Your task to perform on an android device: make emails show in primary in the gmail app Image 0: 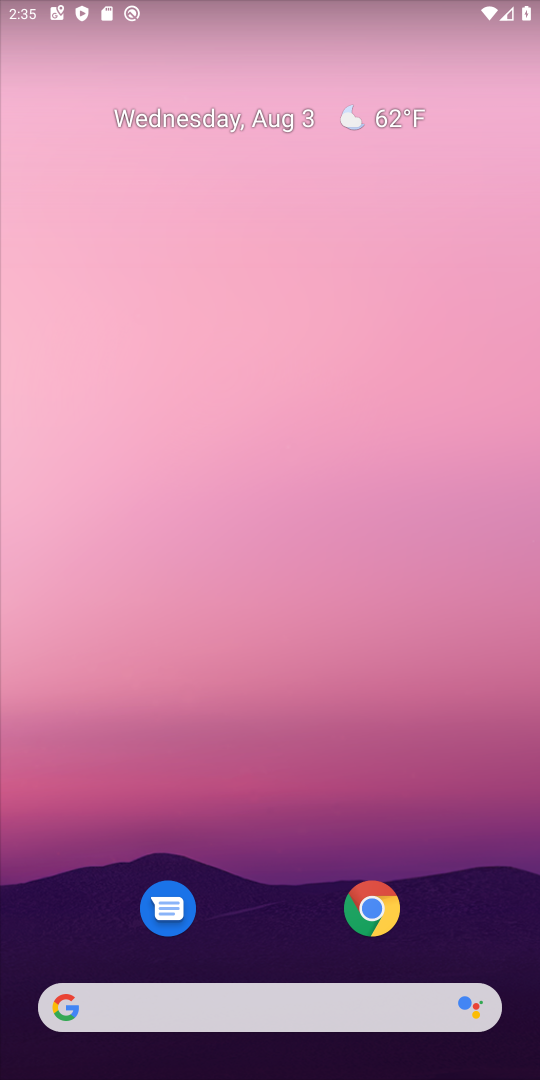
Step 0: drag from (248, 1015) to (313, 171)
Your task to perform on an android device: make emails show in primary in the gmail app Image 1: 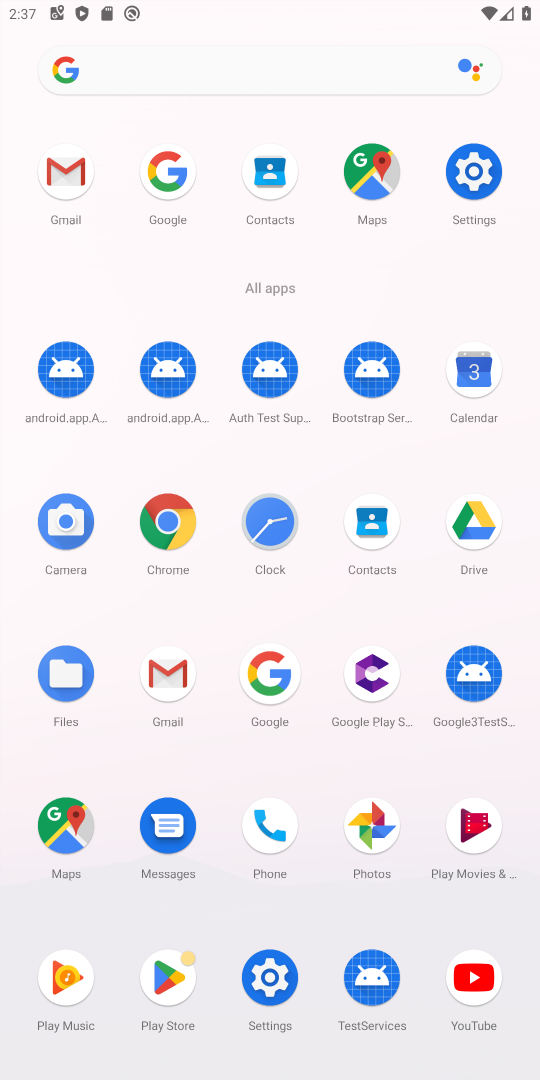
Step 1: click (81, 168)
Your task to perform on an android device: make emails show in primary in the gmail app Image 2: 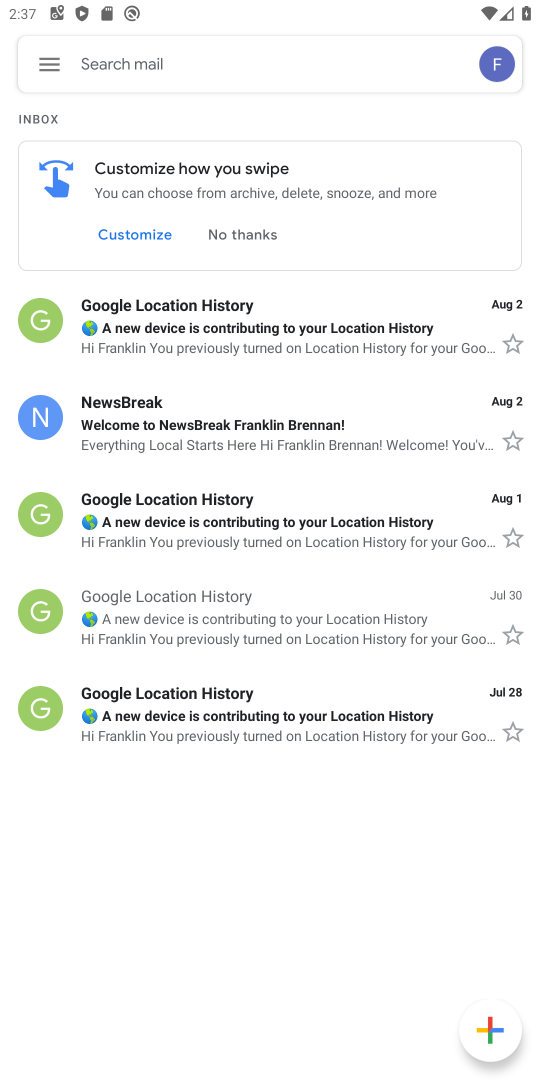
Step 2: click (53, 59)
Your task to perform on an android device: make emails show in primary in the gmail app Image 3: 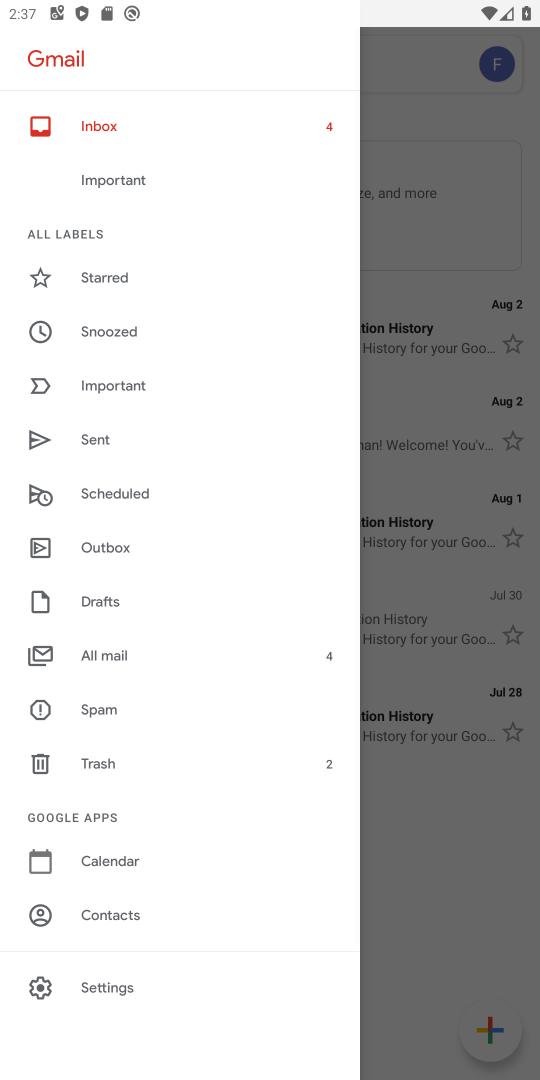
Step 3: click (210, 994)
Your task to perform on an android device: make emails show in primary in the gmail app Image 4: 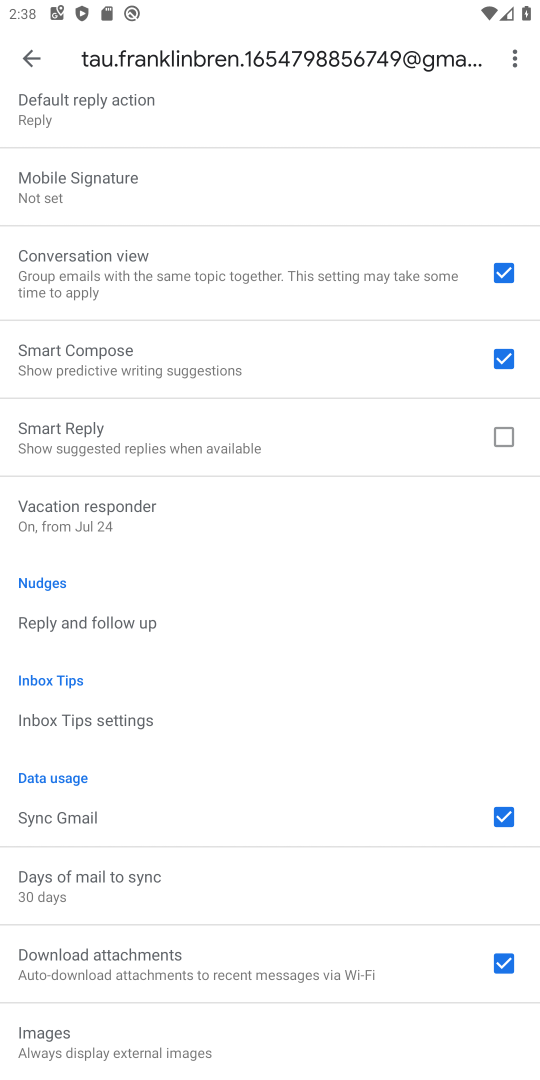
Step 4: drag from (319, 465) to (321, 990)
Your task to perform on an android device: make emails show in primary in the gmail app Image 5: 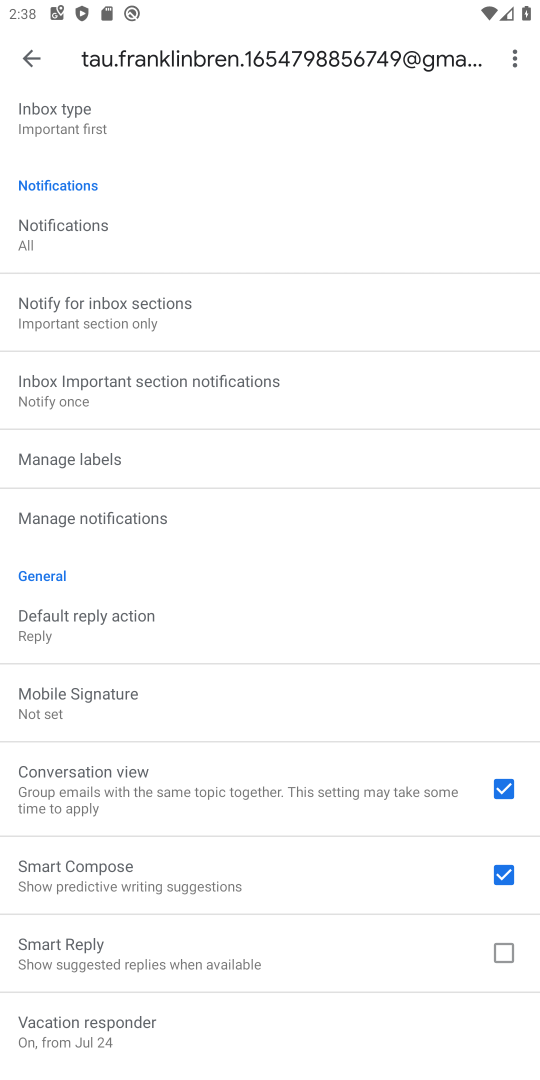
Step 5: click (110, 116)
Your task to perform on an android device: make emails show in primary in the gmail app Image 6: 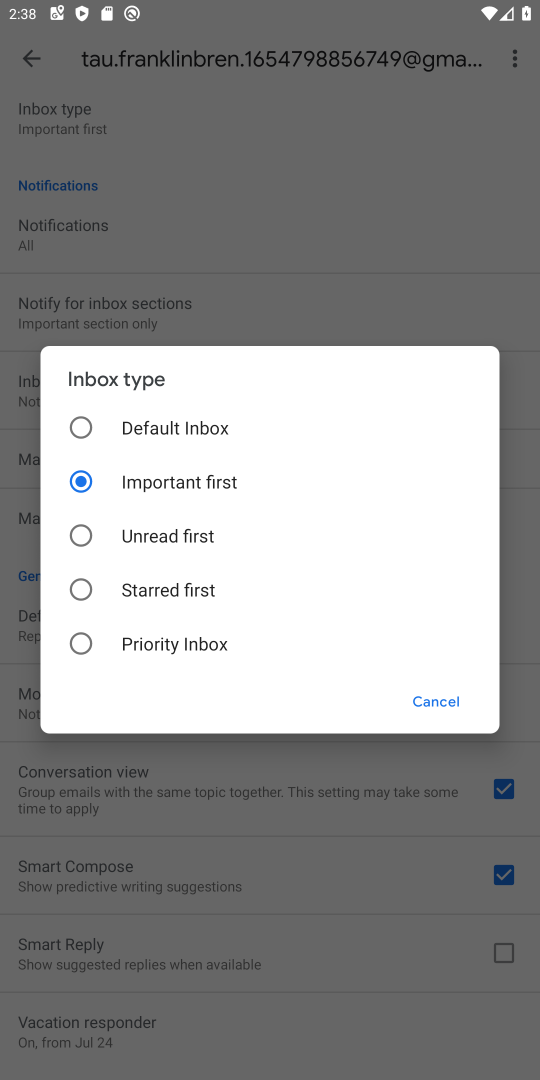
Step 6: click (156, 429)
Your task to perform on an android device: make emails show in primary in the gmail app Image 7: 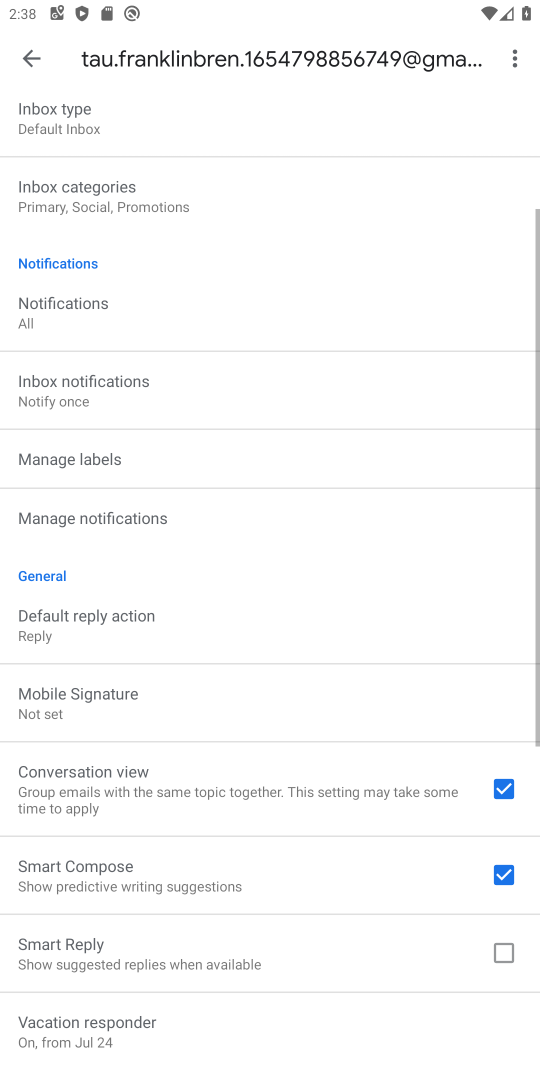
Step 7: click (158, 206)
Your task to perform on an android device: make emails show in primary in the gmail app Image 8: 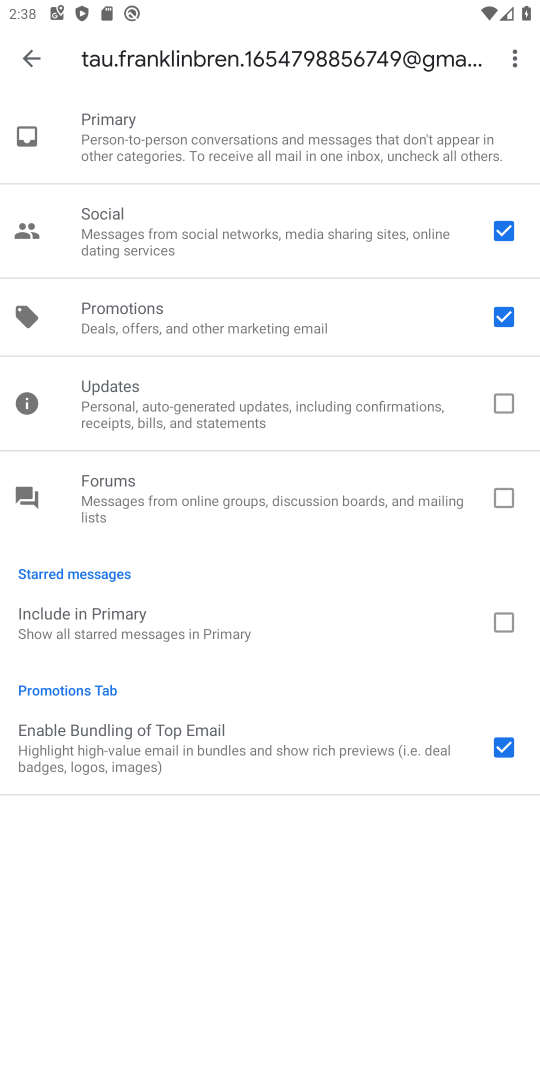
Step 8: click (505, 322)
Your task to perform on an android device: make emails show in primary in the gmail app Image 9: 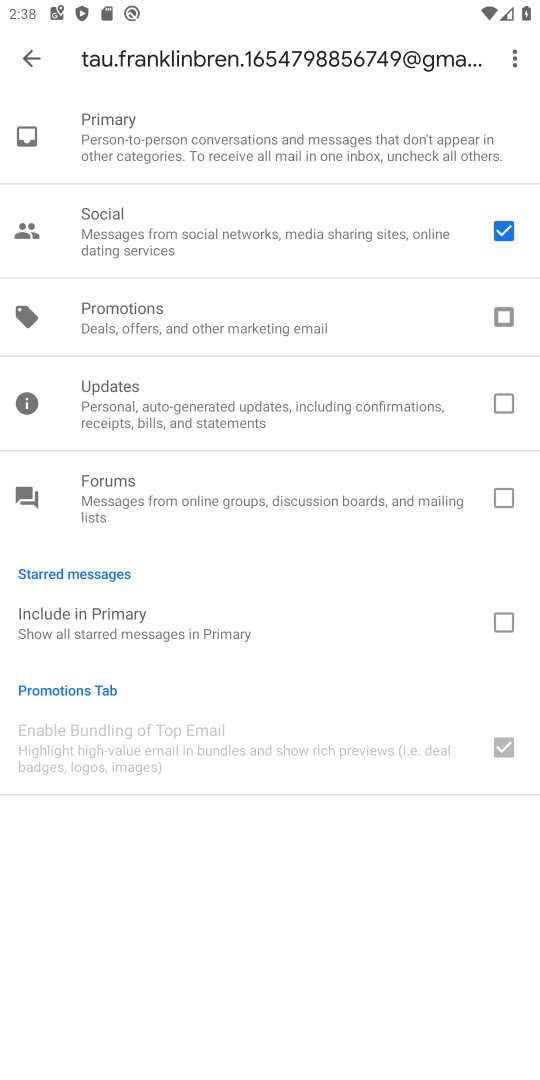
Step 9: click (508, 220)
Your task to perform on an android device: make emails show in primary in the gmail app Image 10: 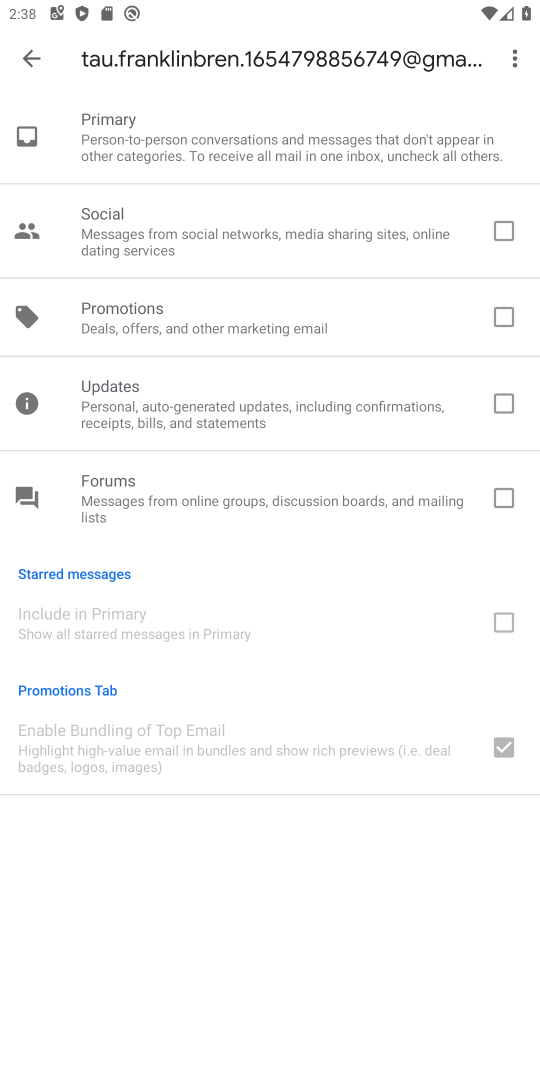
Step 10: task complete